Your task to perform on an android device: turn on improve location accuracy Image 0: 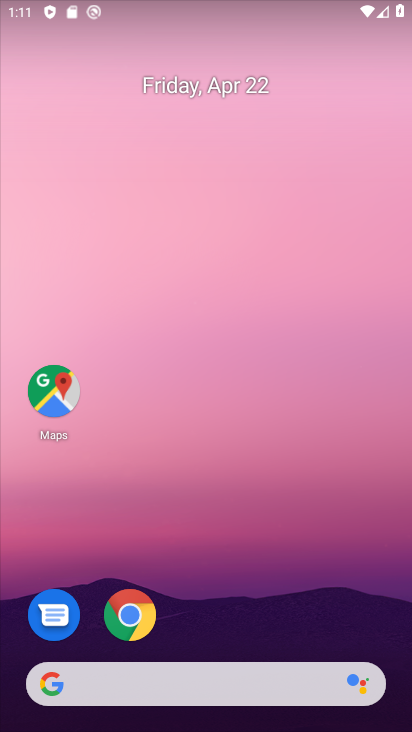
Step 0: drag from (208, 614) to (275, 165)
Your task to perform on an android device: turn on improve location accuracy Image 1: 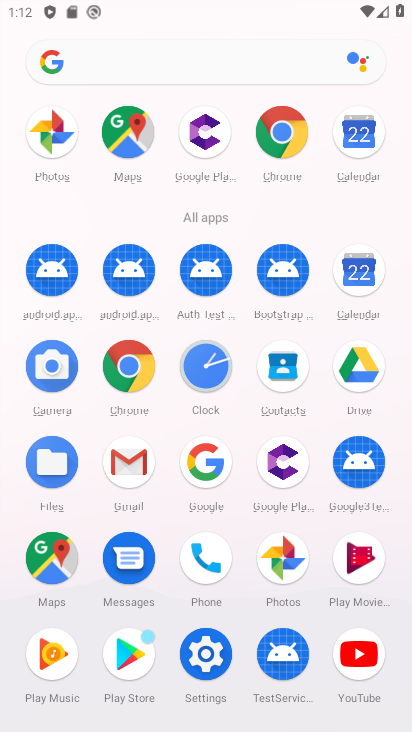
Step 1: click (209, 654)
Your task to perform on an android device: turn on improve location accuracy Image 2: 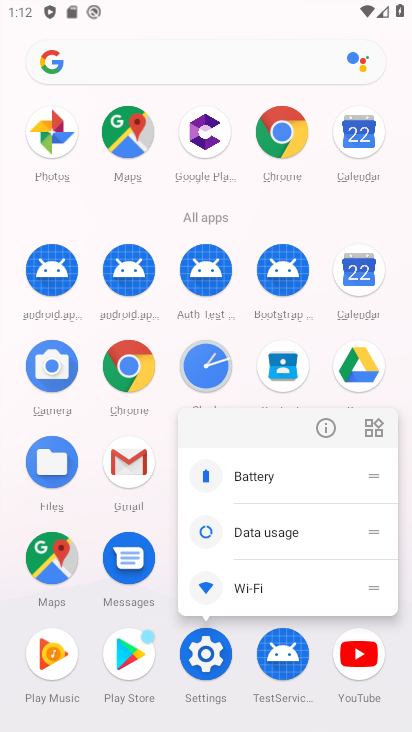
Step 2: click (202, 661)
Your task to perform on an android device: turn on improve location accuracy Image 3: 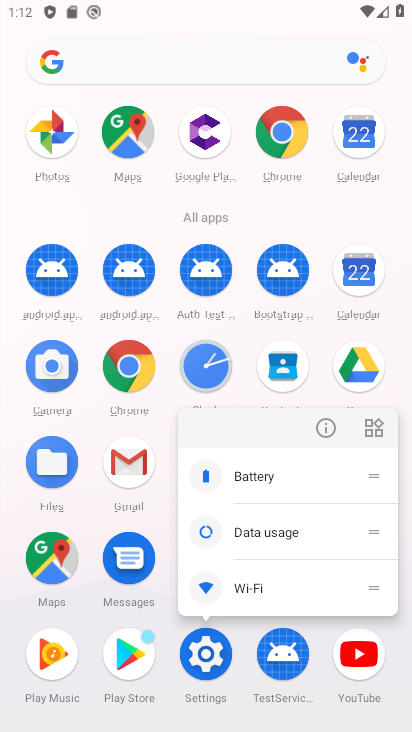
Step 3: click (204, 658)
Your task to perform on an android device: turn on improve location accuracy Image 4: 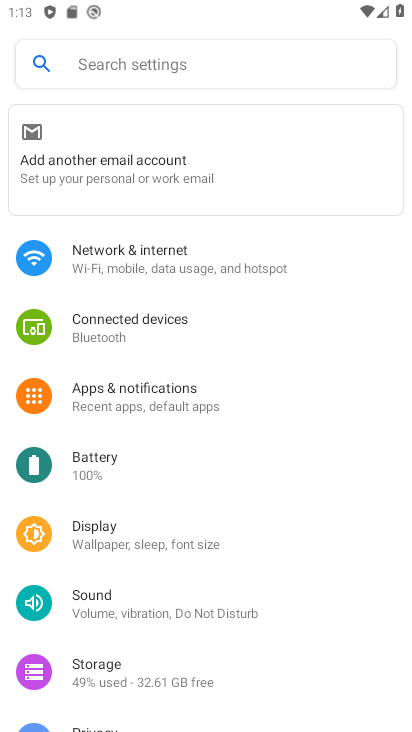
Step 4: drag from (127, 664) to (219, 208)
Your task to perform on an android device: turn on improve location accuracy Image 5: 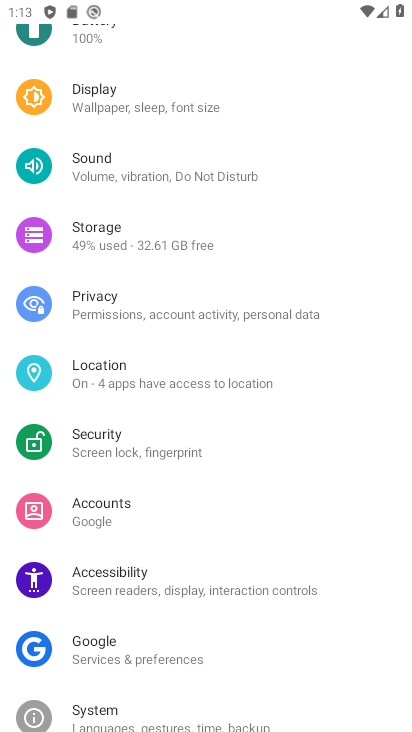
Step 5: click (141, 374)
Your task to perform on an android device: turn on improve location accuracy Image 6: 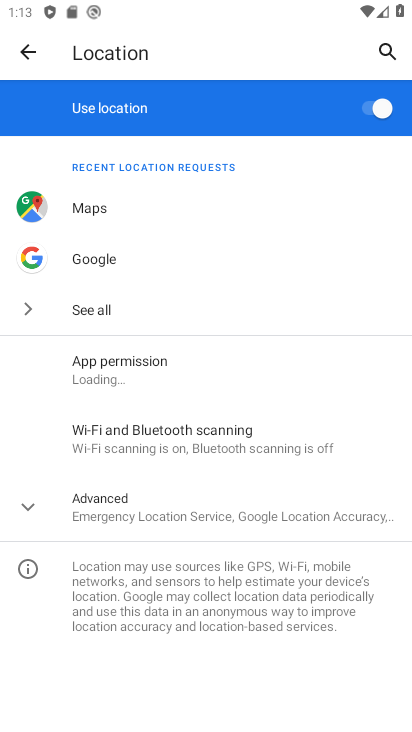
Step 6: click (176, 508)
Your task to perform on an android device: turn on improve location accuracy Image 7: 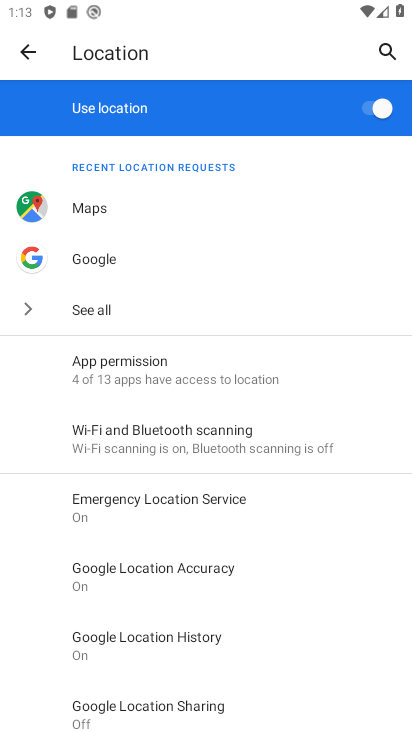
Step 7: click (182, 572)
Your task to perform on an android device: turn on improve location accuracy Image 8: 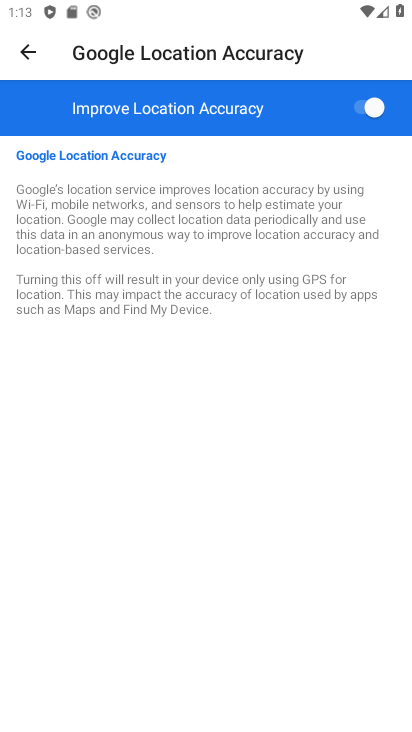
Step 8: task complete